Your task to perform on an android device: open wifi settings Image 0: 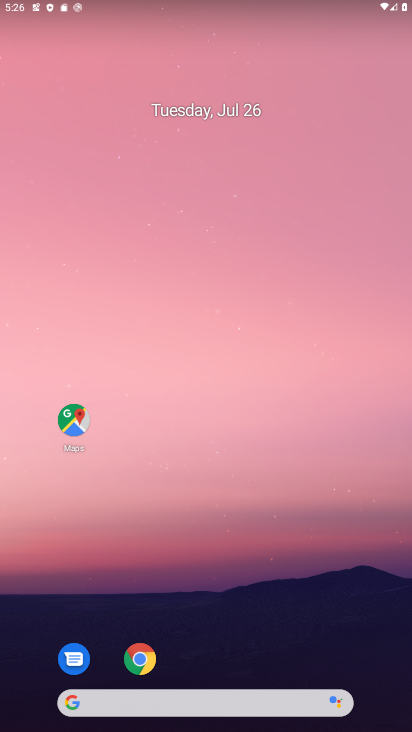
Step 0: drag from (282, 605) to (274, 7)
Your task to perform on an android device: open wifi settings Image 1: 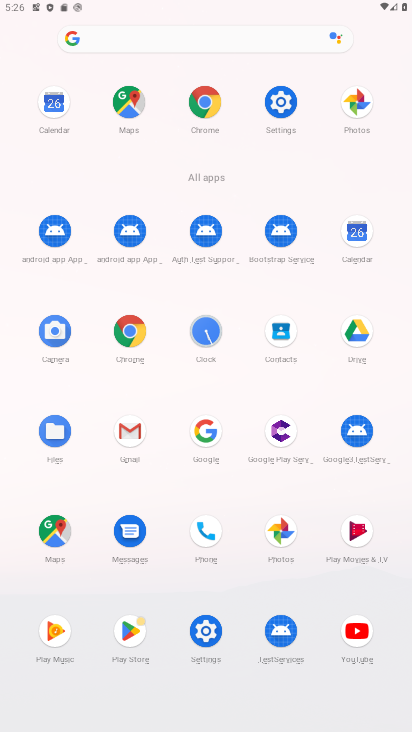
Step 1: click (282, 114)
Your task to perform on an android device: open wifi settings Image 2: 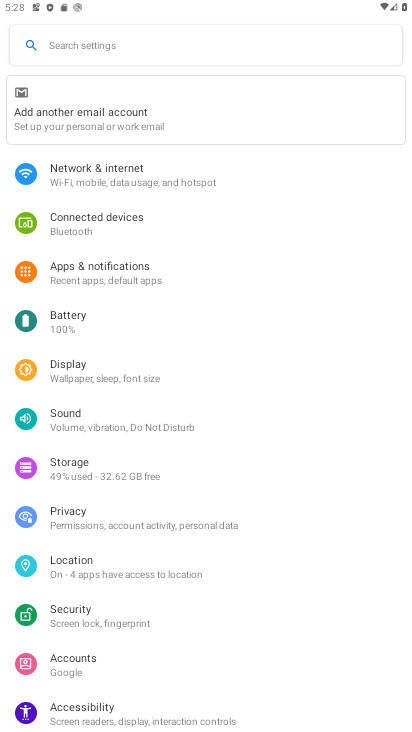
Step 2: click (92, 179)
Your task to perform on an android device: open wifi settings Image 3: 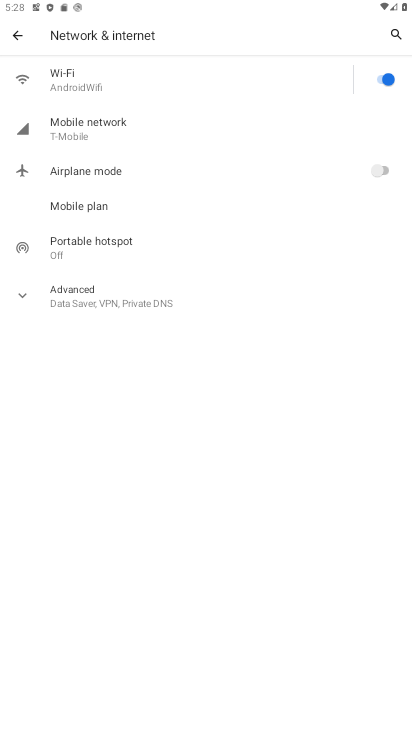
Step 3: task complete